Your task to perform on an android device: see creations saved in the google photos Image 0: 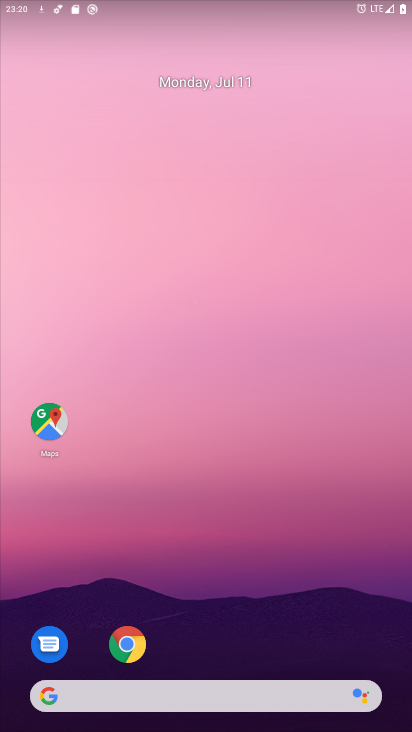
Step 0: drag from (187, 477) to (184, 383)
Your task to perform on an android device: see creations saved in the google photos Image 1: 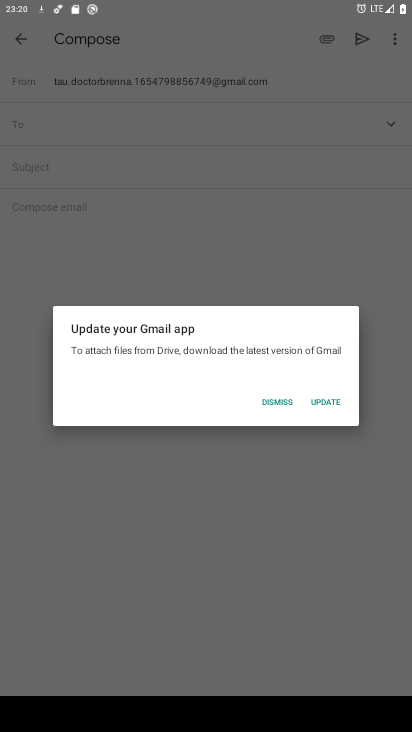
Step 1: press home button
Your task to perform on an android device: see creations saved in the google photos Image 2: 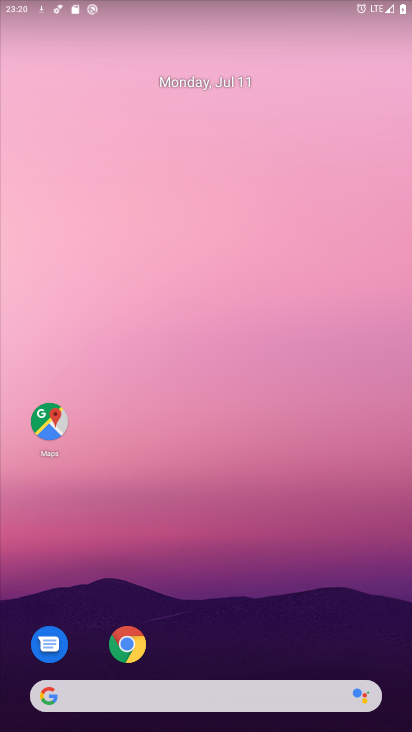
Step 2: drag from (244, 613) to (230, 300)
Your task to perform on an android device: see creations saved in the google photos Image 3: 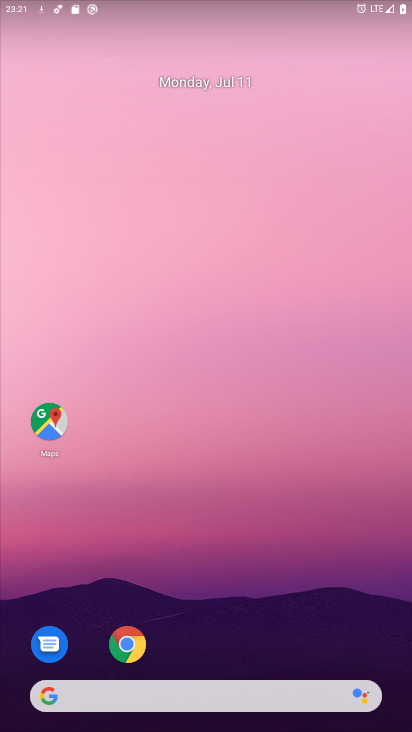
Step 3: drag from (199, 587) to (193, 51)
Your task to perform on an android device: see creations saved in the google photos Image 4: 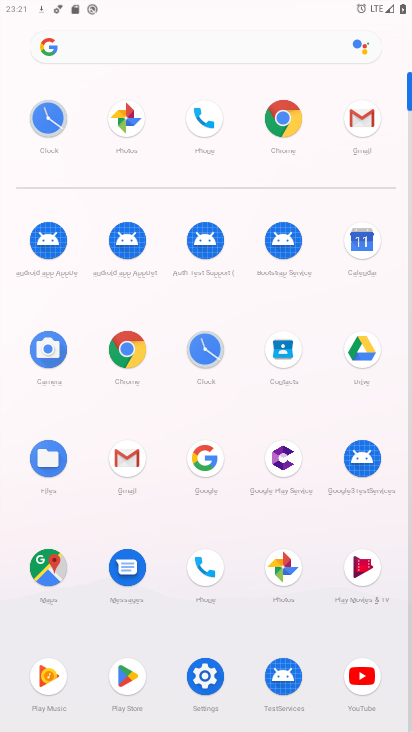
Step 4: click (277, 564)
Your task to perform on an android device: see creations saved in the google photos Image 5: 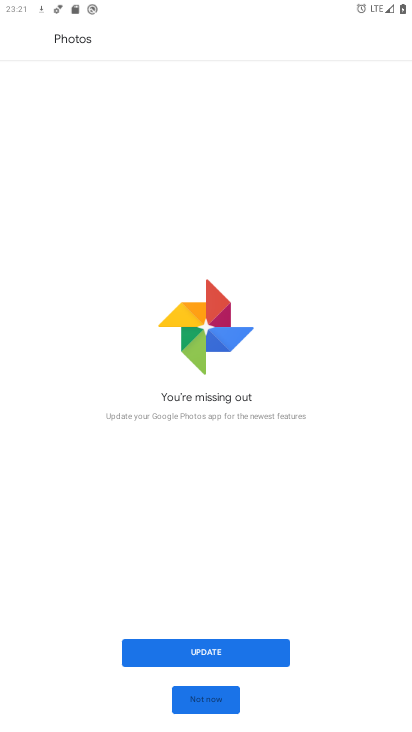
Step 5: click (227, 703)
Your task to perform on an android device: see creations saved in the google photos Image 6: 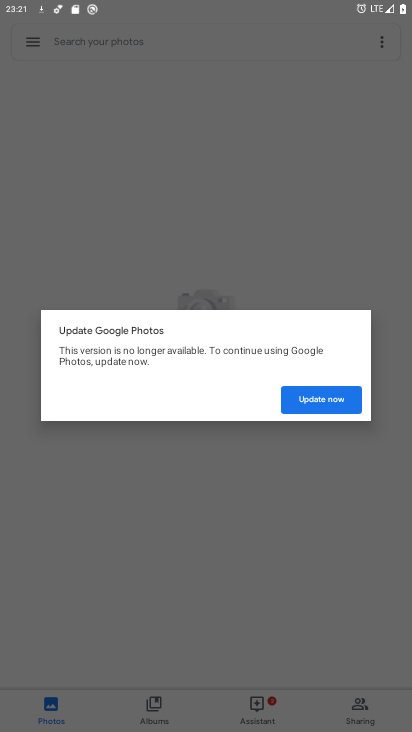
Step 6: click (292, 401)
Your task to perform on an android device: see creations saved in the google photos Image 7: 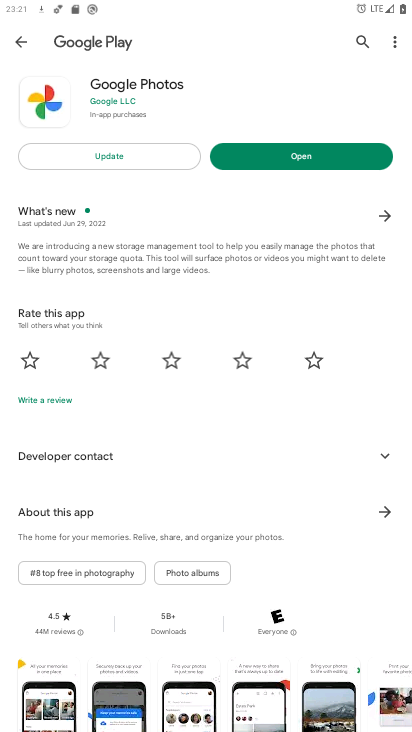
Step 7: press back button
Your task to perform on an android device: see creations saved in the google photos Image 8: 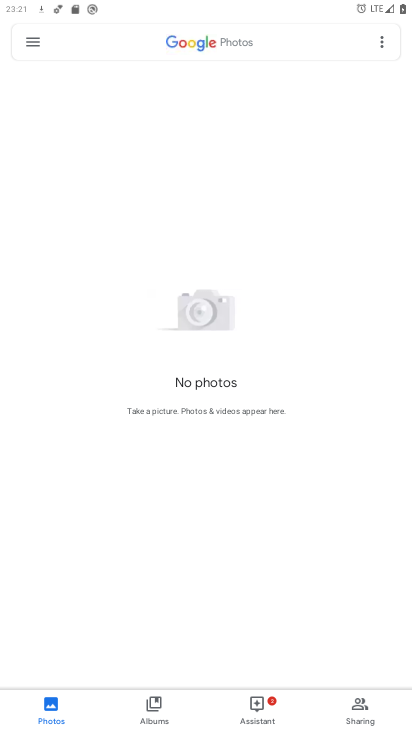
Step 8: click (27, 49)
Your task to perform on an android device: see creations saved in the google photos Image 9: 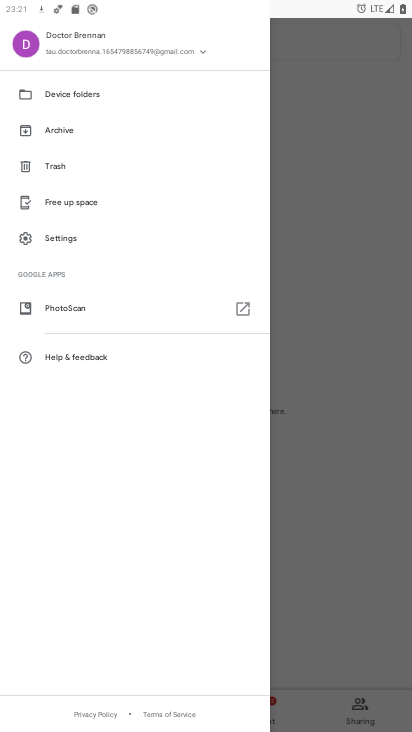
Step 9: click (358, 519)
Your task to perform on an android device: see creations saved in the google photos Image 10: 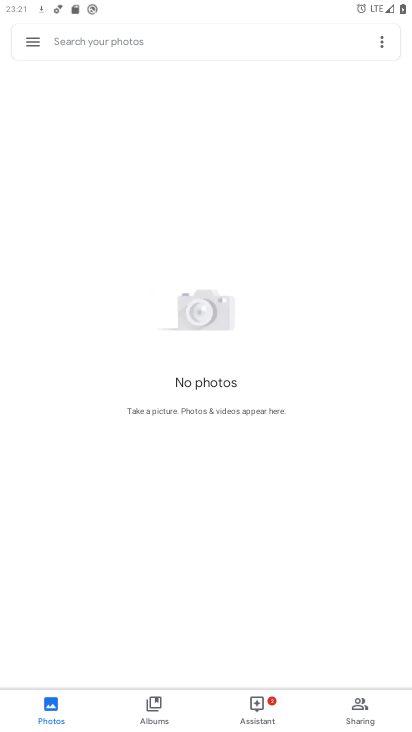
Step 10: click (154, 697)
Your task to perform on an android device: see creations saved in the google photos Image 11: 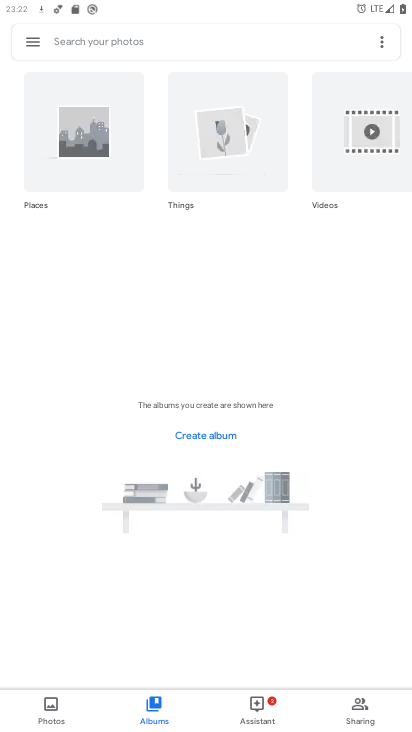
Step 11: task complete